Your task to perform on an android device: Add "logitech g933" to the cart on newegg Image 0: 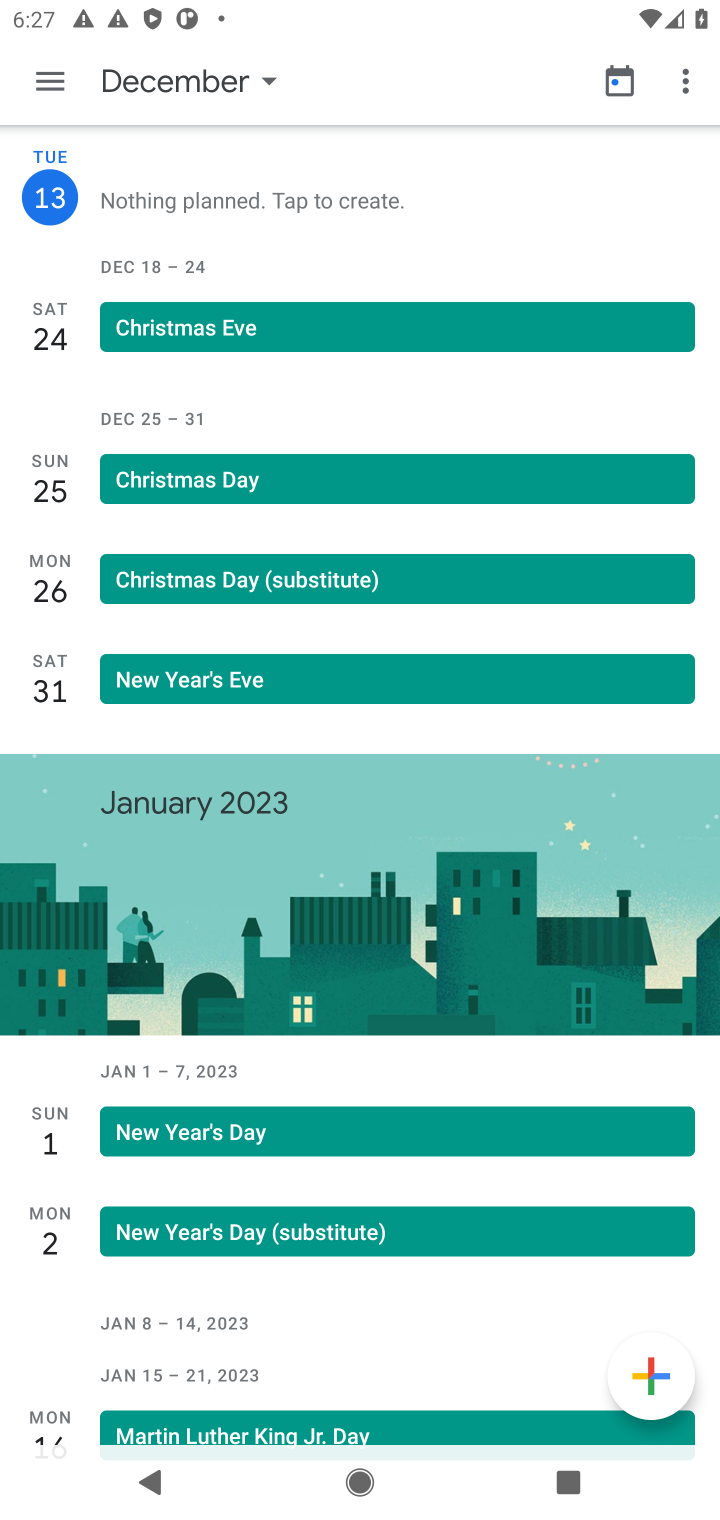
Step 0: press home button
Your task to perform on an android device: Add "logitech g933" to the cart on newegg Image 1: 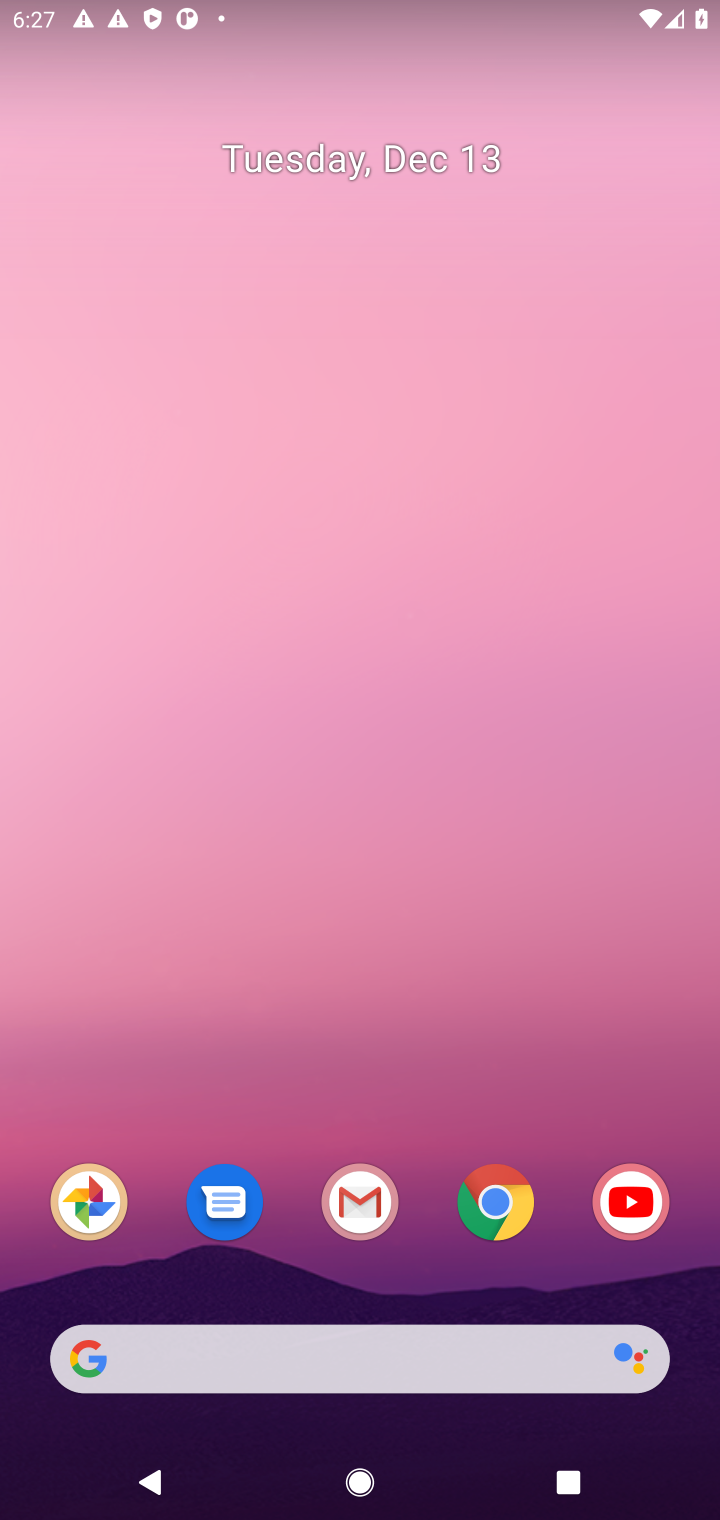
Step 1: click (493, 1211)
Your task to perform on an android device: Add "logitech g933" to the cart on newegg Image 2: 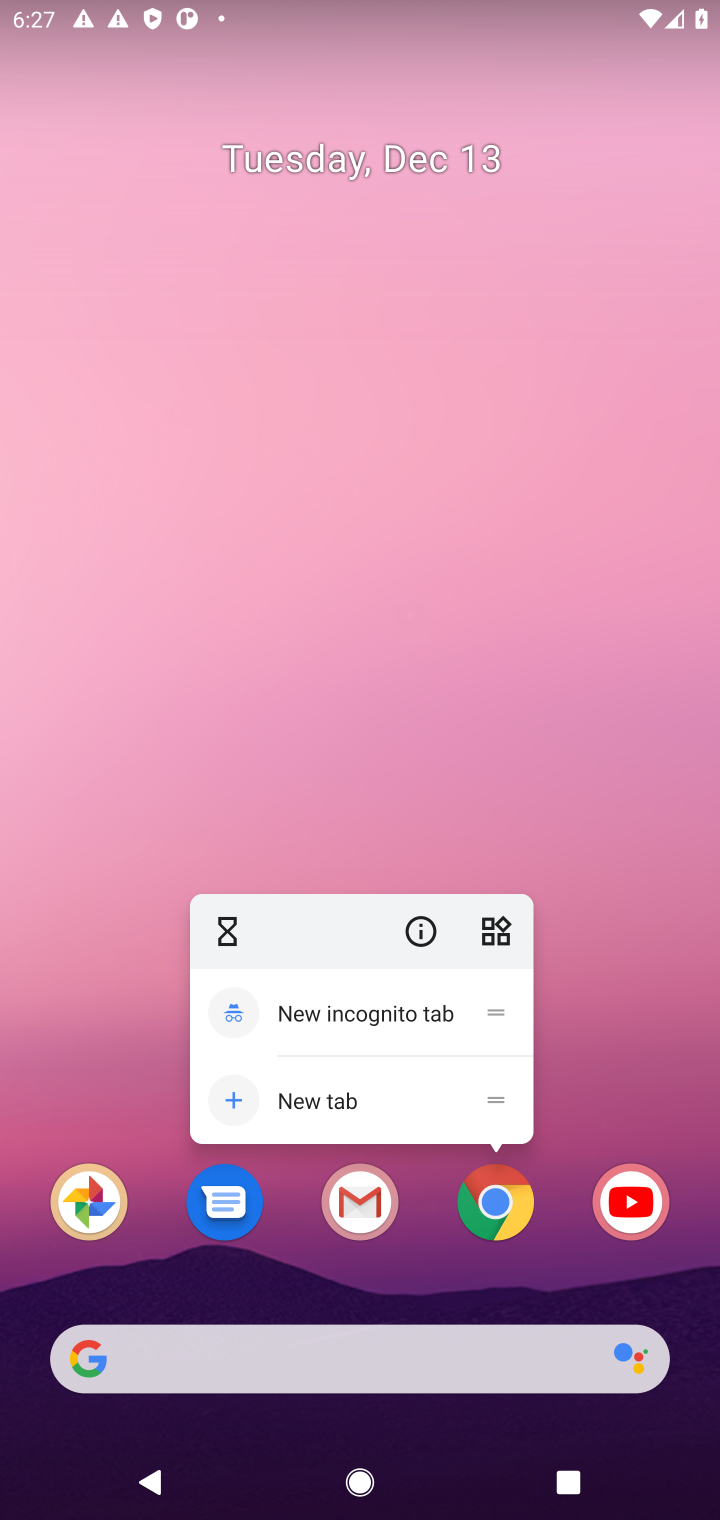
Step 2: click (493, 1211)
Your task to perform on an android device: Add "logitech g933" to the cart on newegg Image 3: 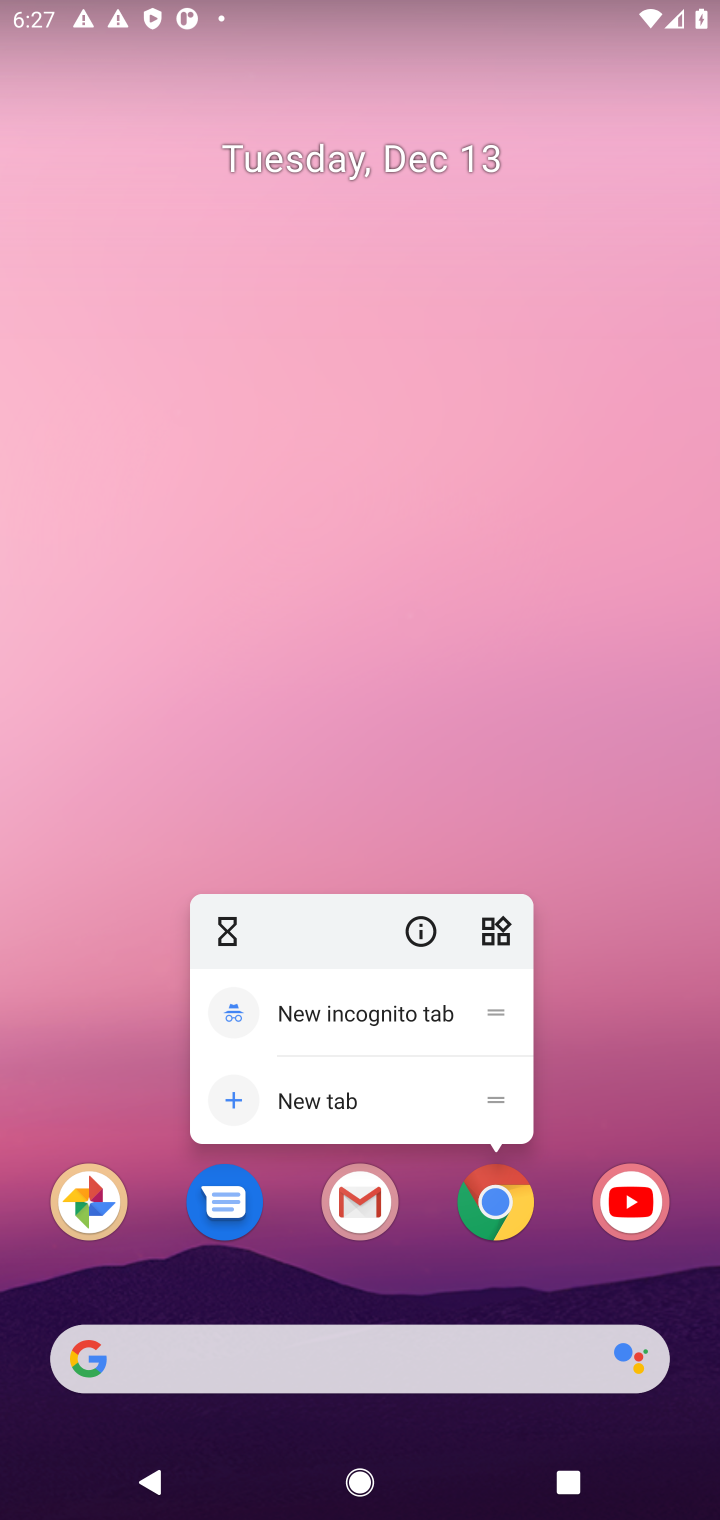
Step 3: click (493, 1211)
Your task to perform on an android device: Add "logitech g933" to the cart on newegg Image 4: 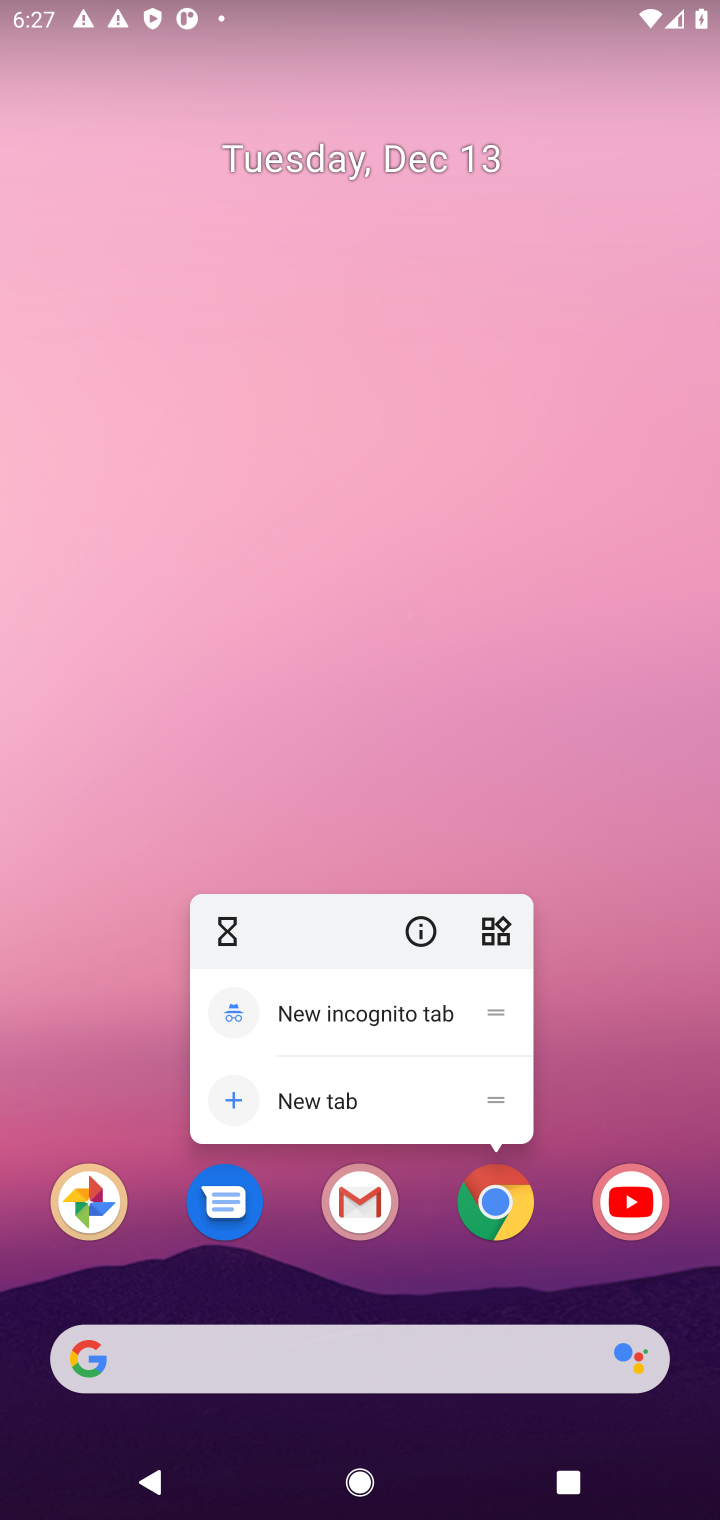
Step 4: click (493, 1211)
Your task to perform on an android device: Add "logitech g933" to the cart on newegg Image 5: 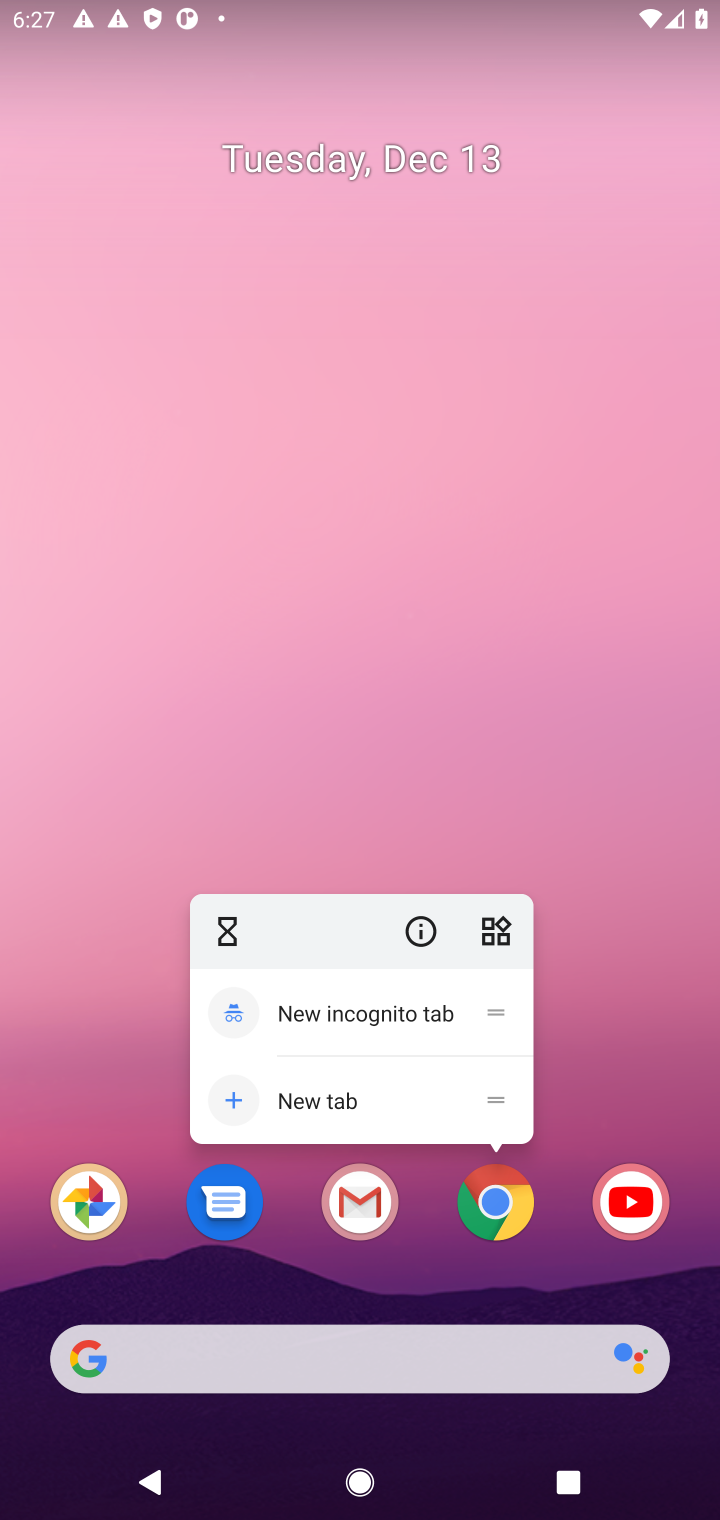
Step 5: click (513, 1217)
Your task to perform on an android device: Add "logitech g933" to the cart on newegg Image 6: 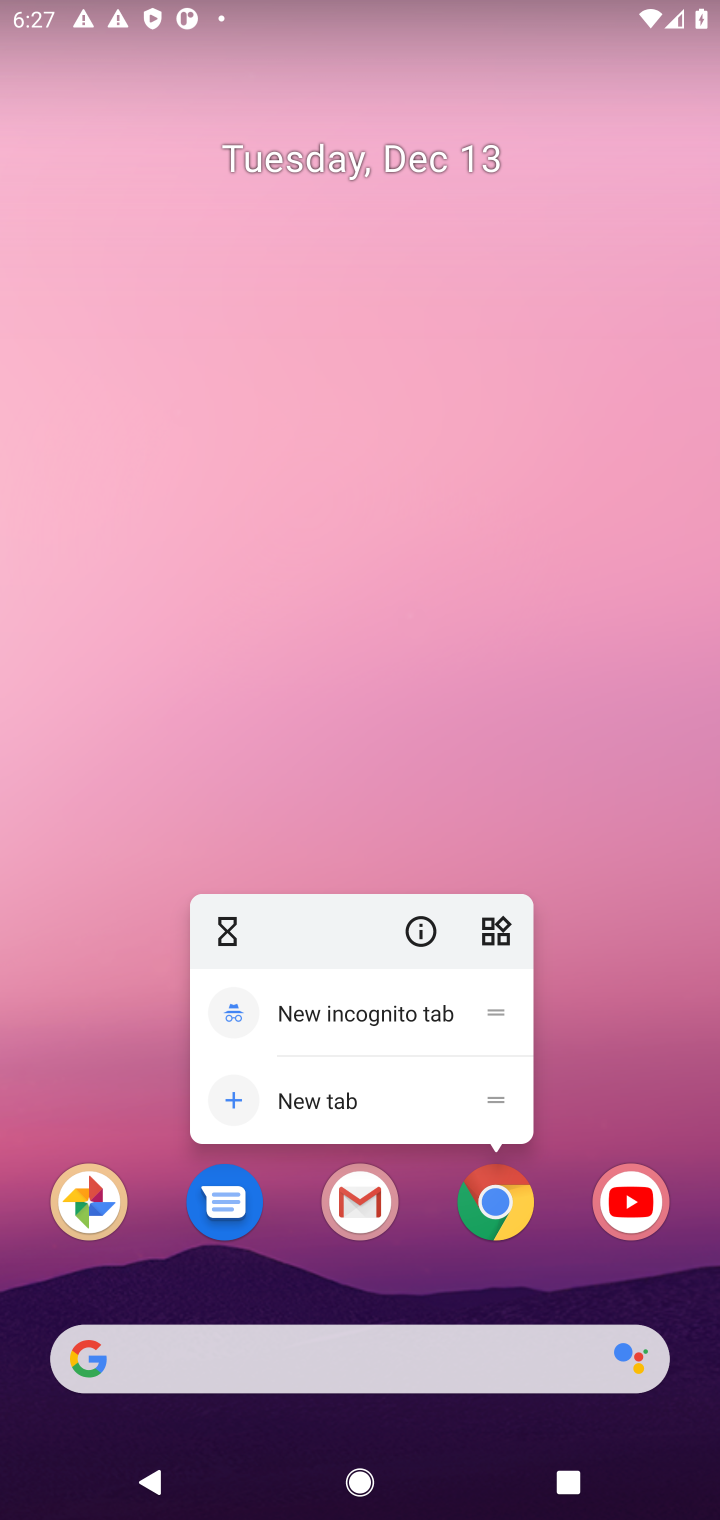
Step 6: click (581, 1112)
Your task to perform on an android device: Add "logitech g933" to the cart on newegg Image 7: 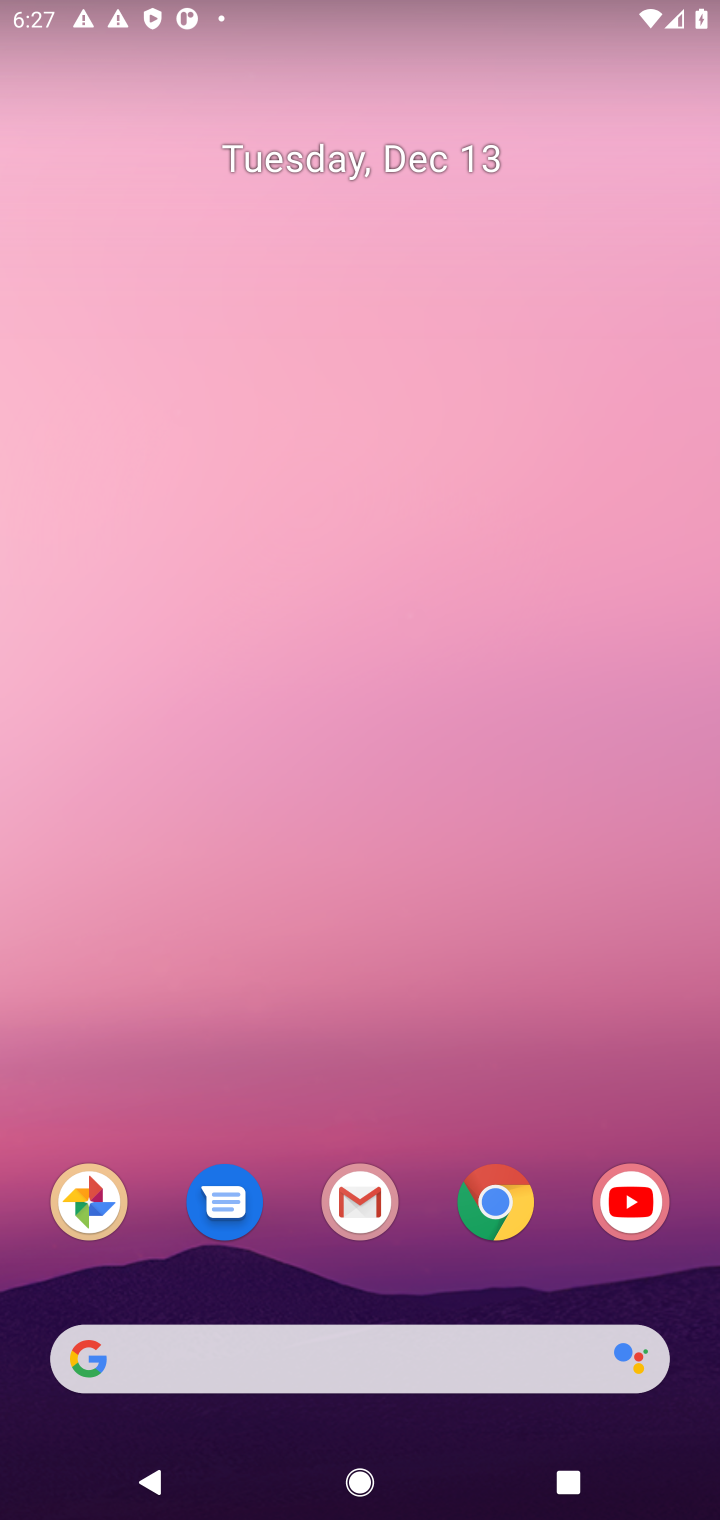
Step 7: click (512, 1214)
Your task to perform on an android device: Add "logitech g933" to the cart on newegg Image 8: 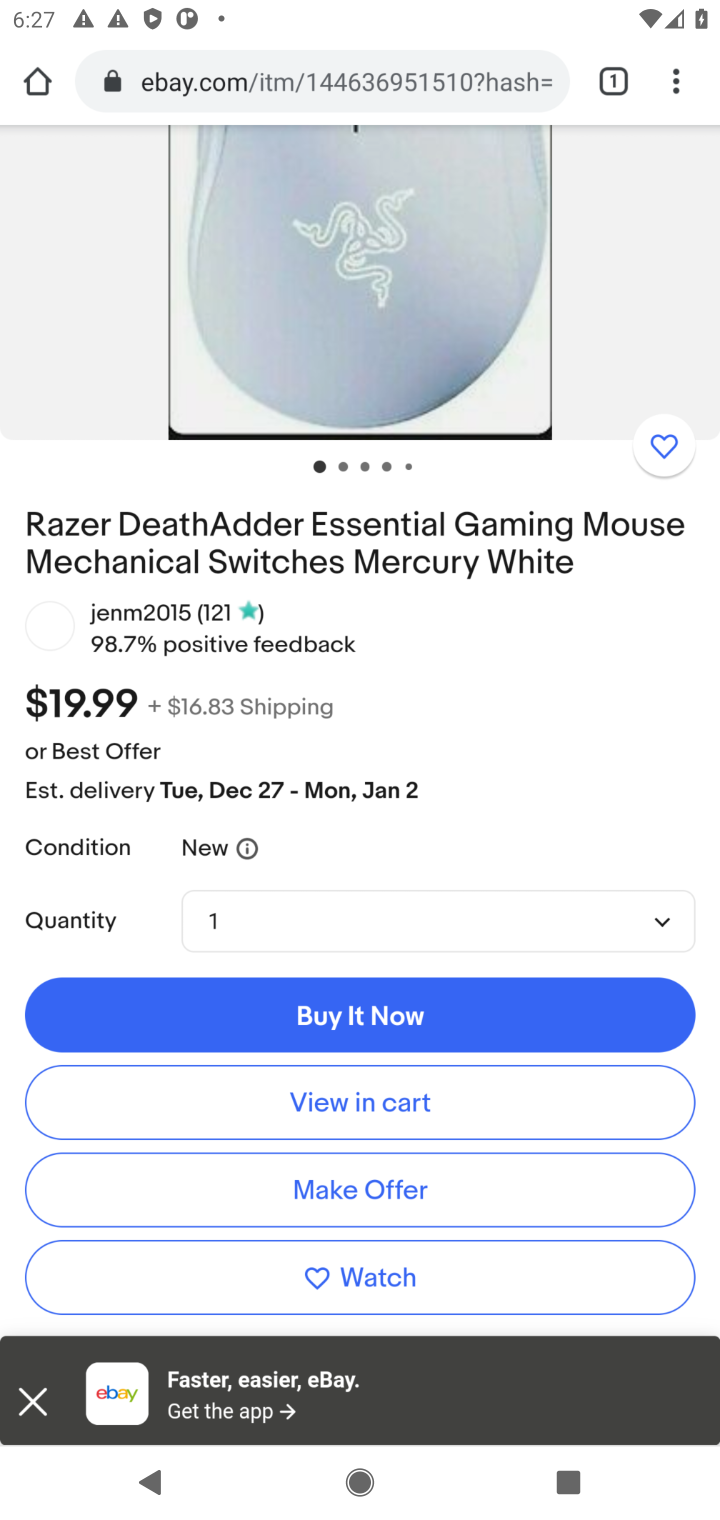
Step 8: click (512, 1214)
Your task to perform on an android device: Add "logitech g933" to the cart on newegg Image 9: 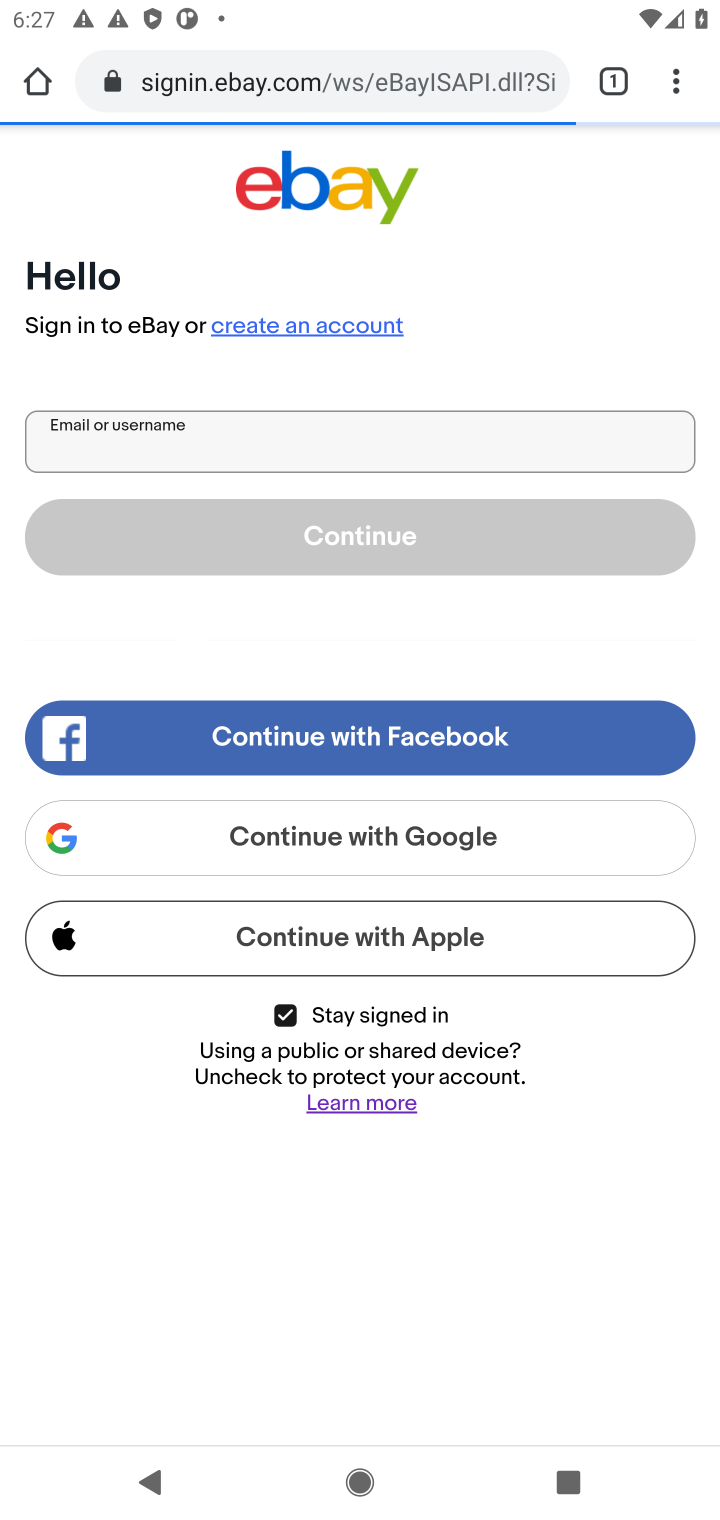
Step 9: click (273, 84)
Your task to perform on an android device: Add "logitech g933" to the cart on newegg Image 10: 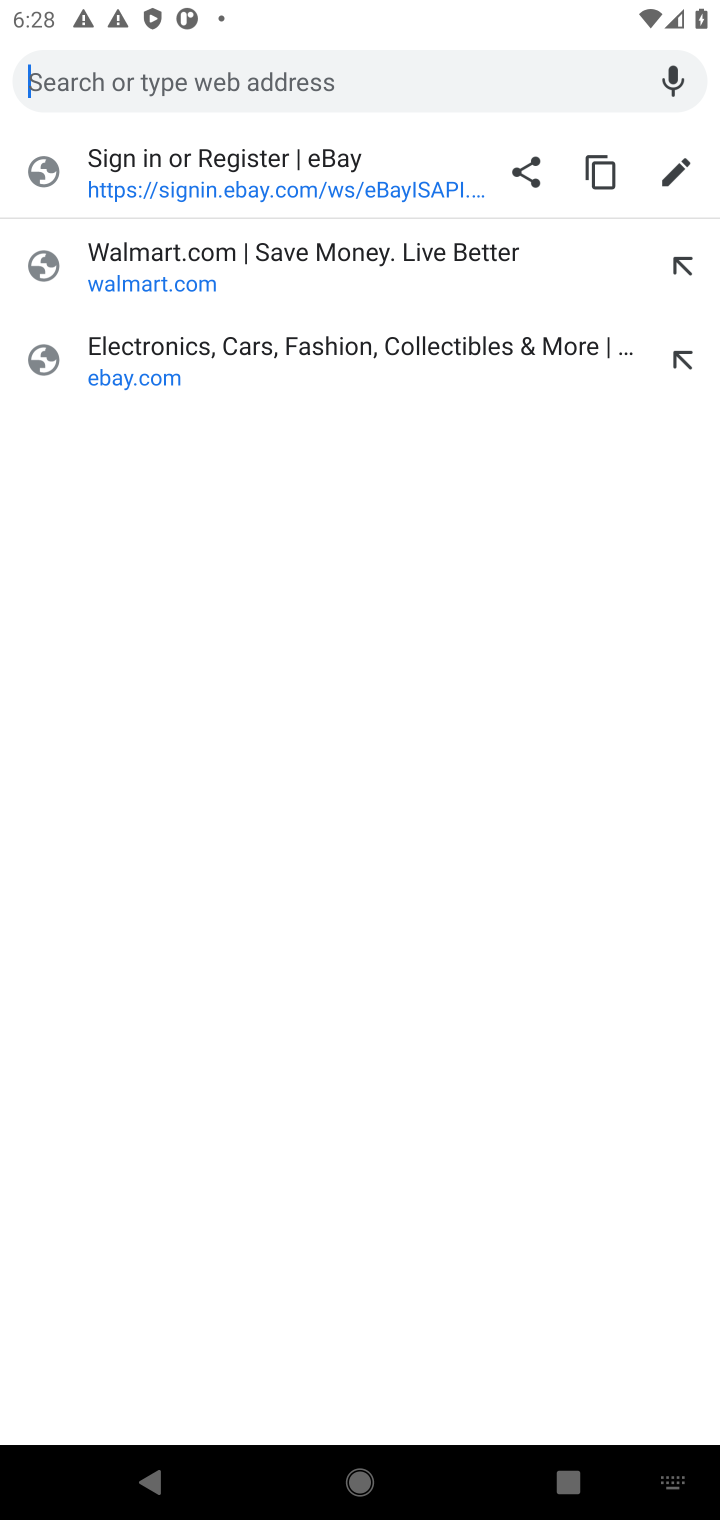
Step 10: type "newegg.com"
Your task to perform on an android device: Add "logitech g933" to the cart on newegg Image 11: 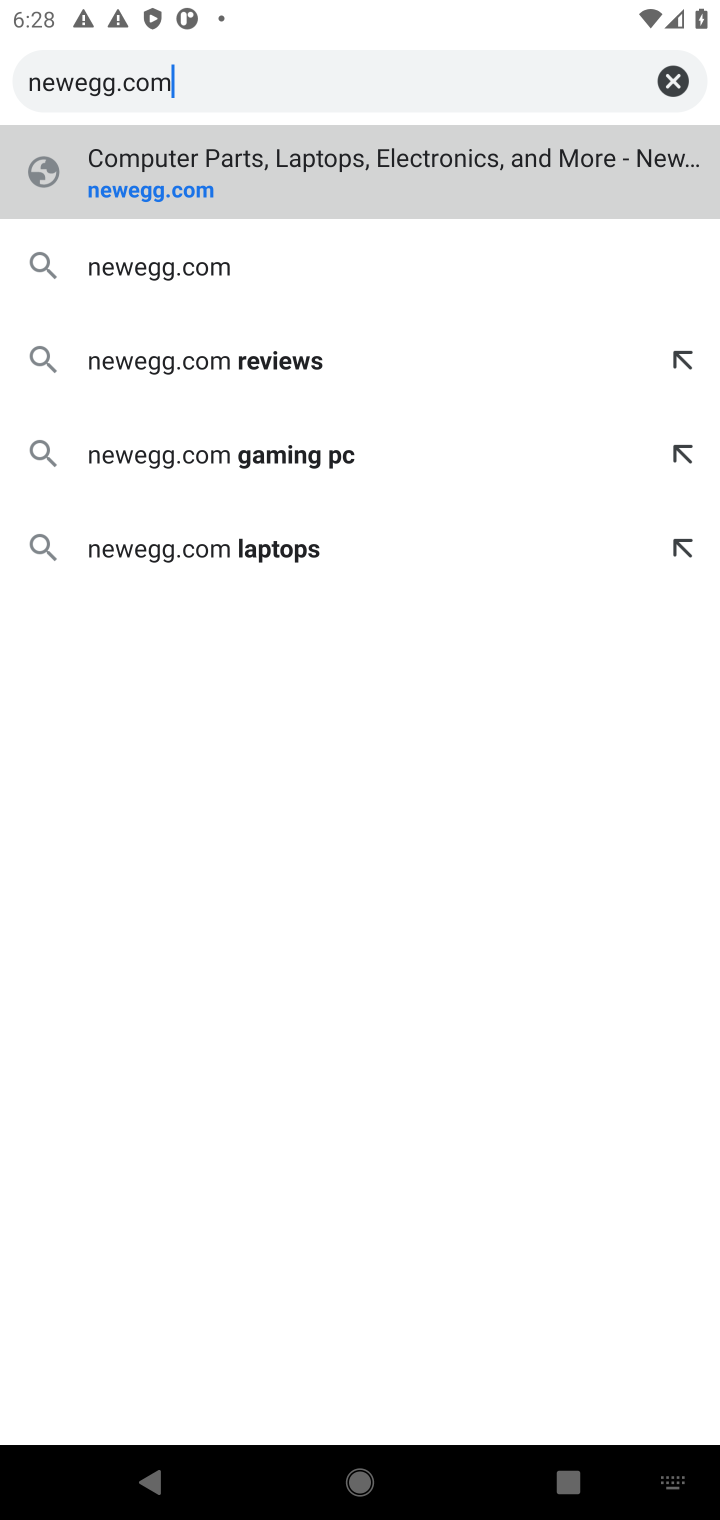
Step 11: click (182, 197)
Your task to perform on an android device: Add "logitech g933" to the cart on newegg Image 12: 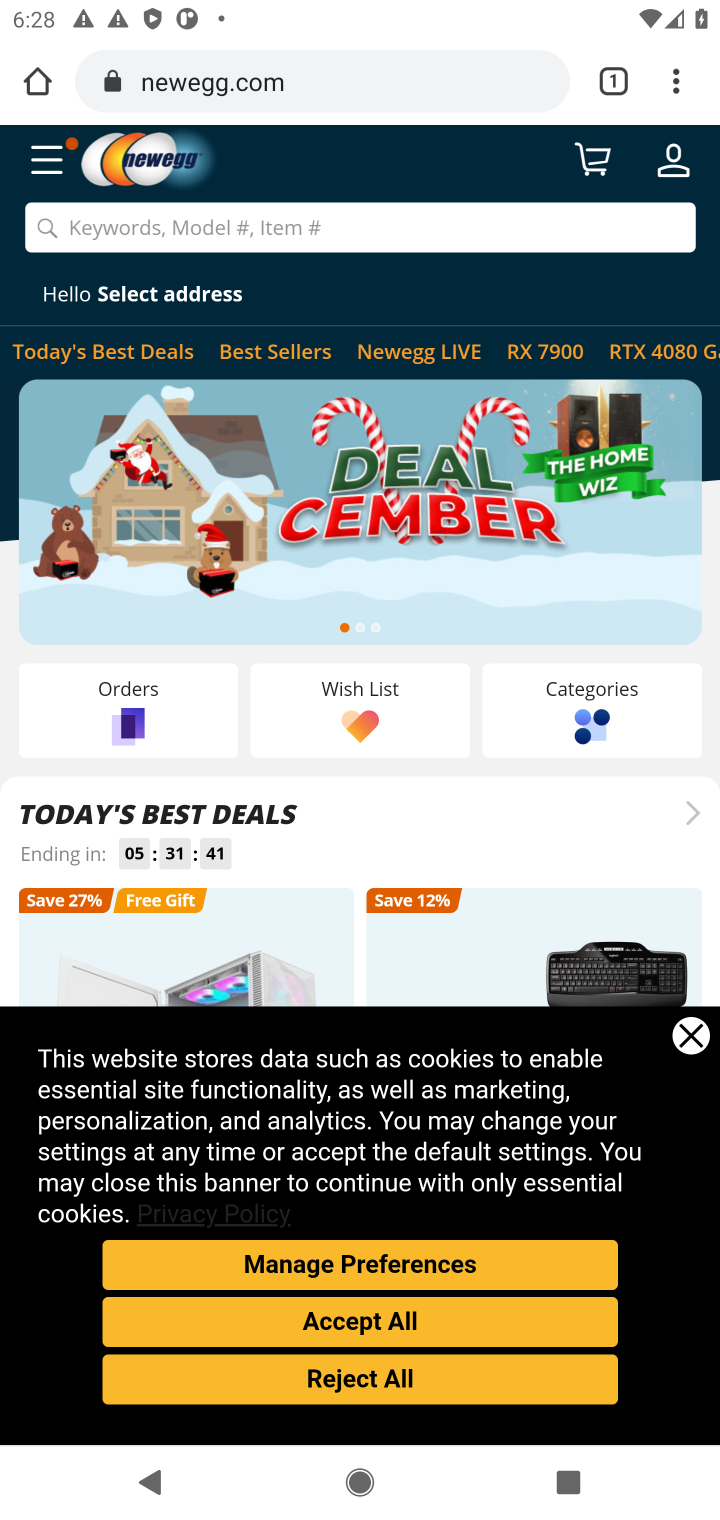
Step 12: click (81, 240)
Your task to perform on an android device: Add "logitech g933" to the cart on newegg Image 13: 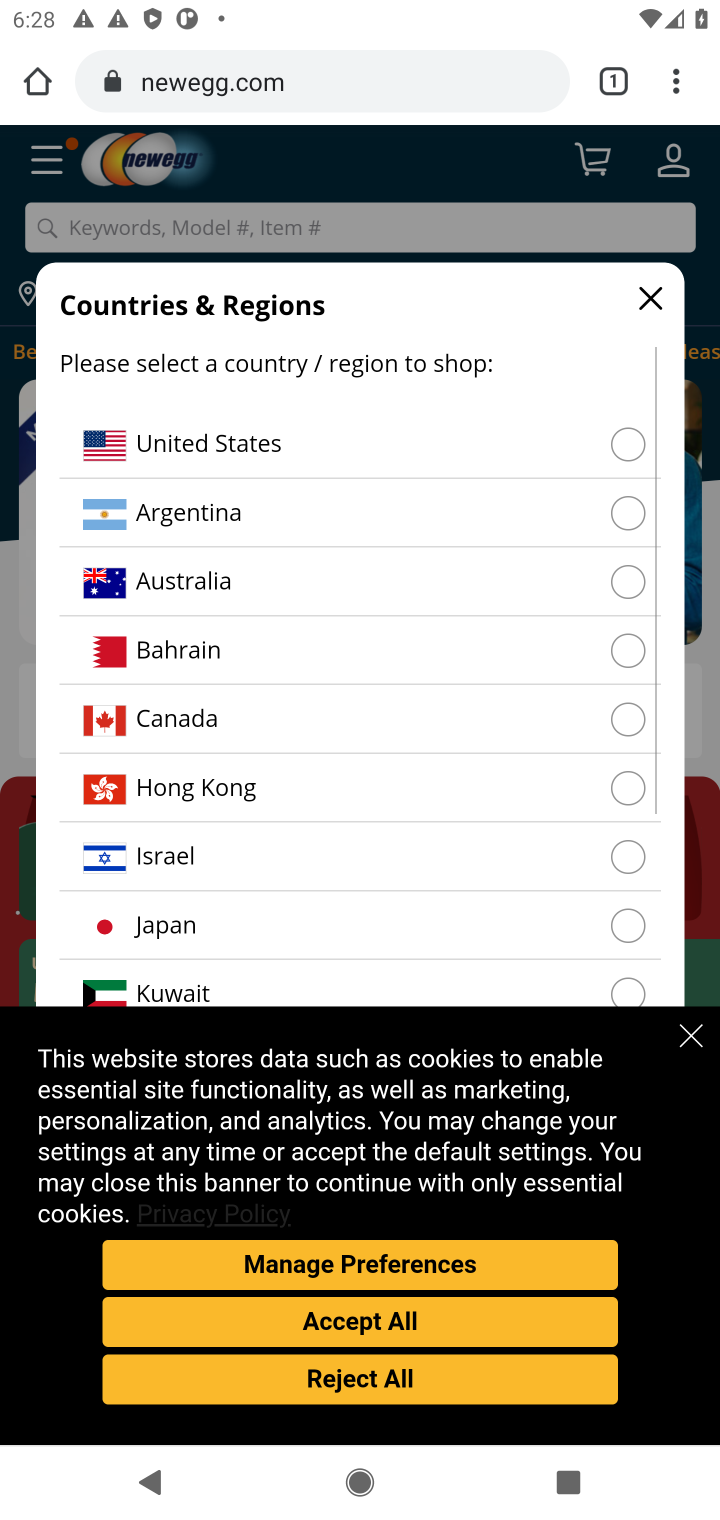
Step 13: click (695, 1037)
Your task to perform on an android device: Add "logitech g933" to the cart on newegg Image 14: 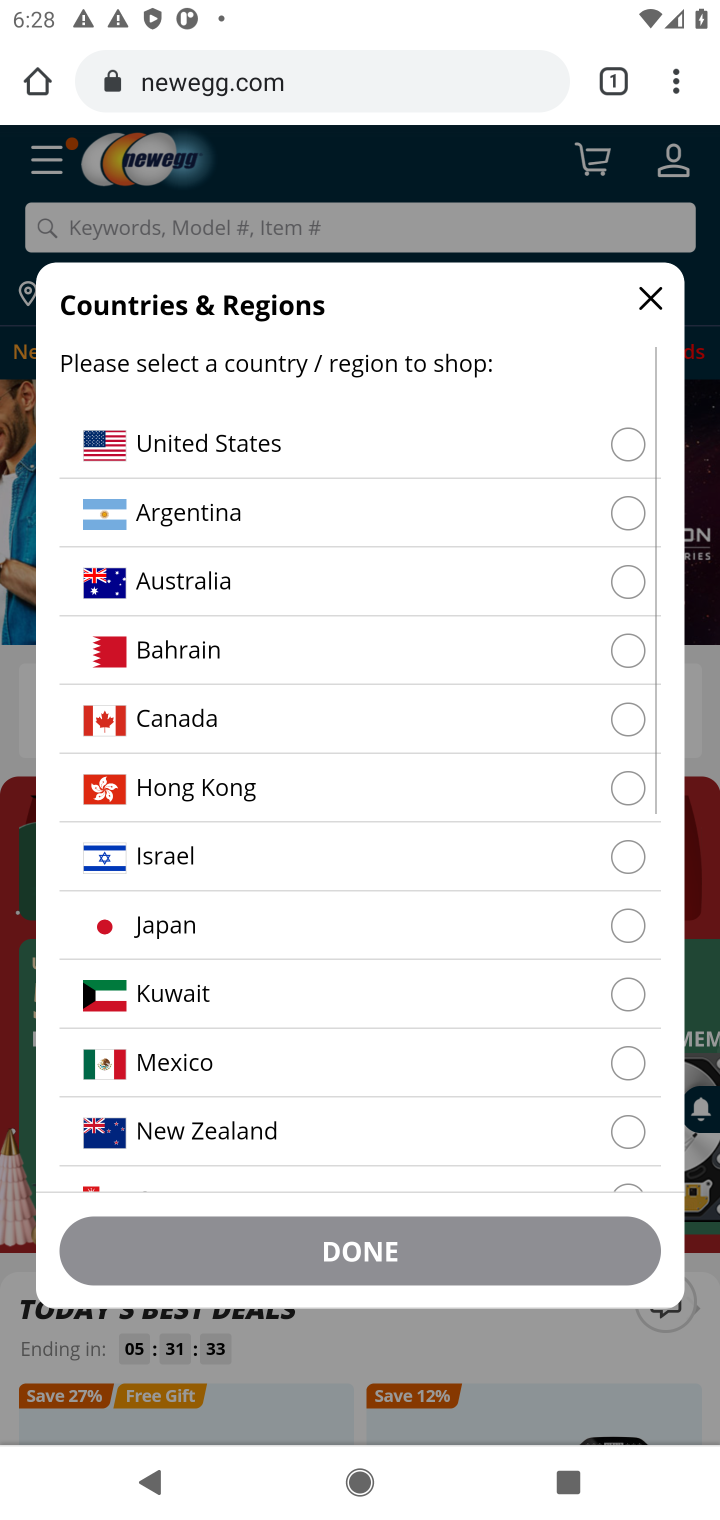
Step 14: click (139, 456)
Your task to perform on an android device: Add "logitech g933" to the cart on newegg Image 15: 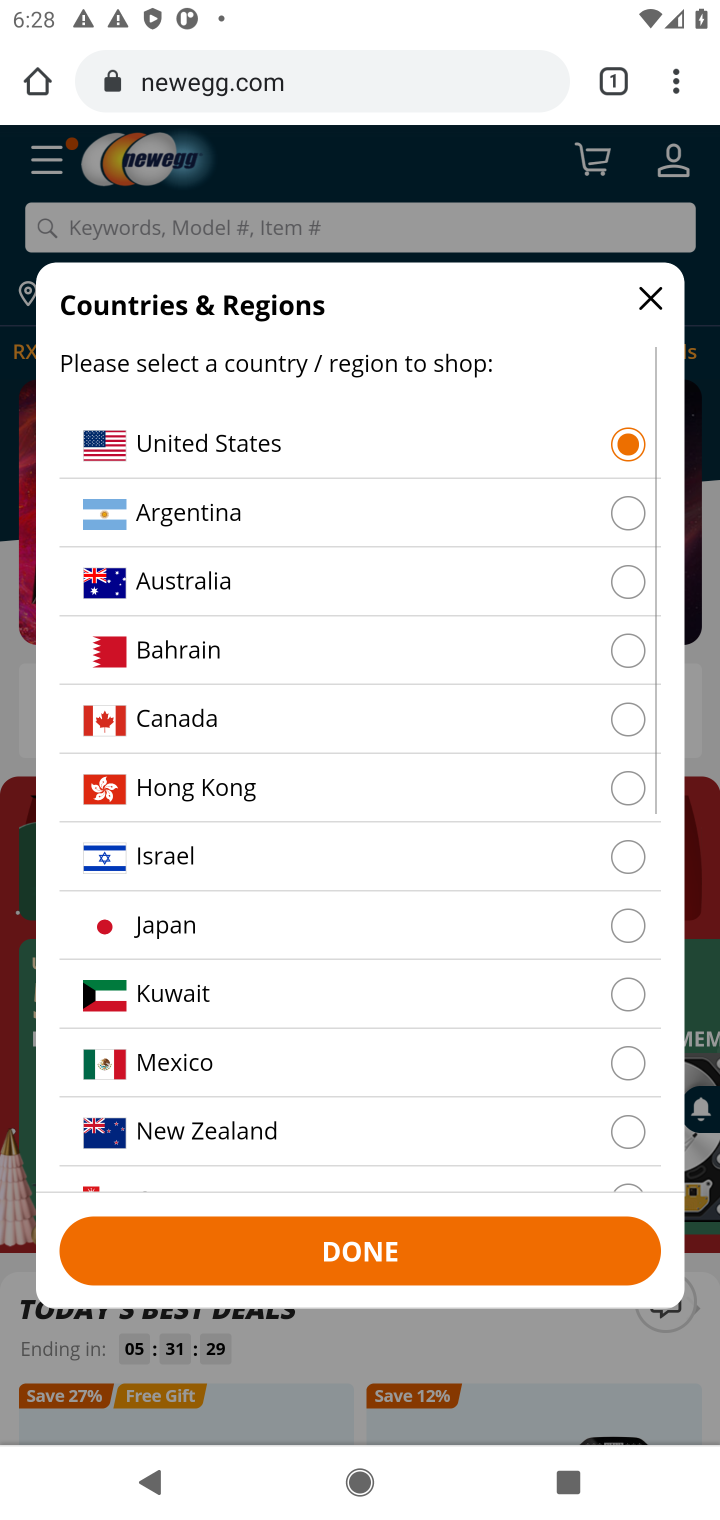
Step 15: click (334, 1249)
Your task to perform on an android device: Add "logitech g933" to the cart on newegg Image 16: 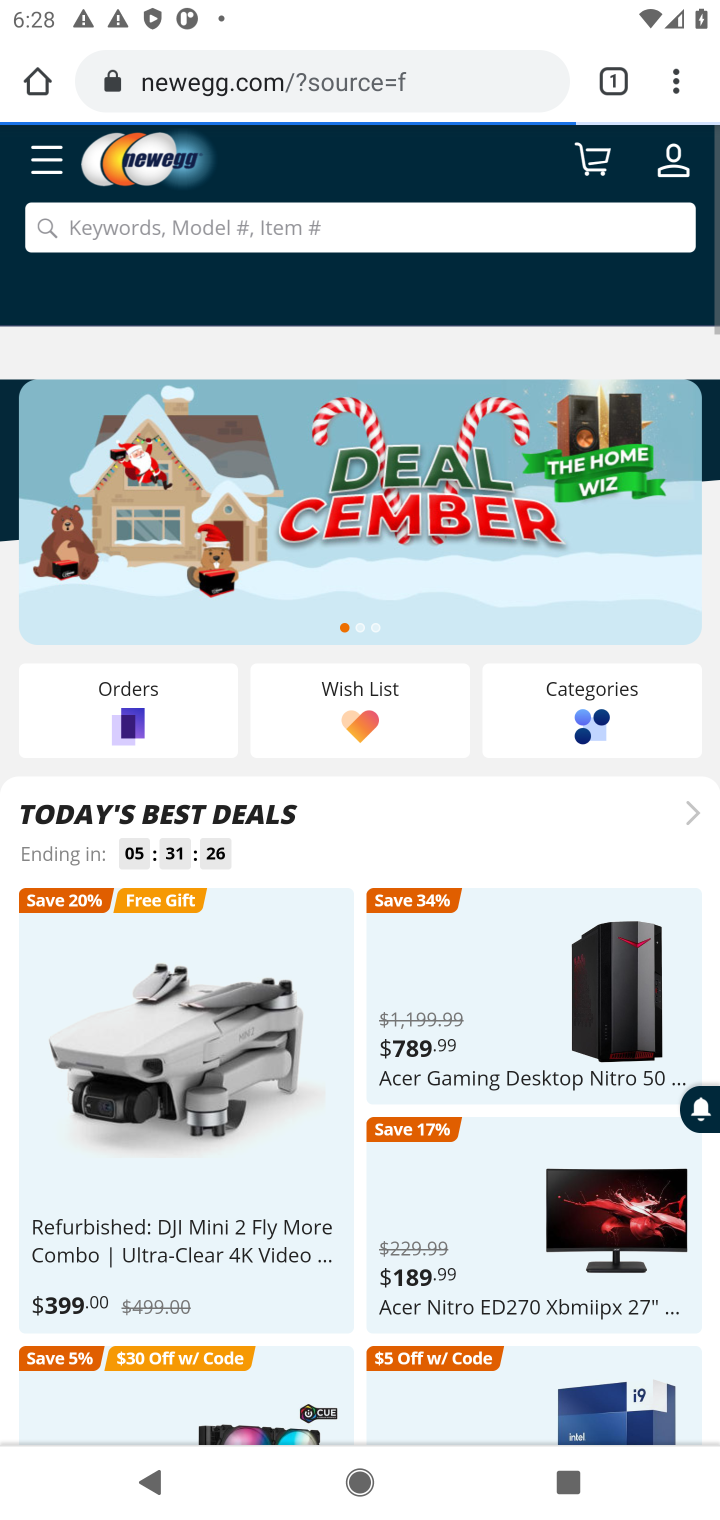
Step 16: click (137, 240)
Your task to perform on an android device: Add "logitech g933" to the cart on newegg Image 17: 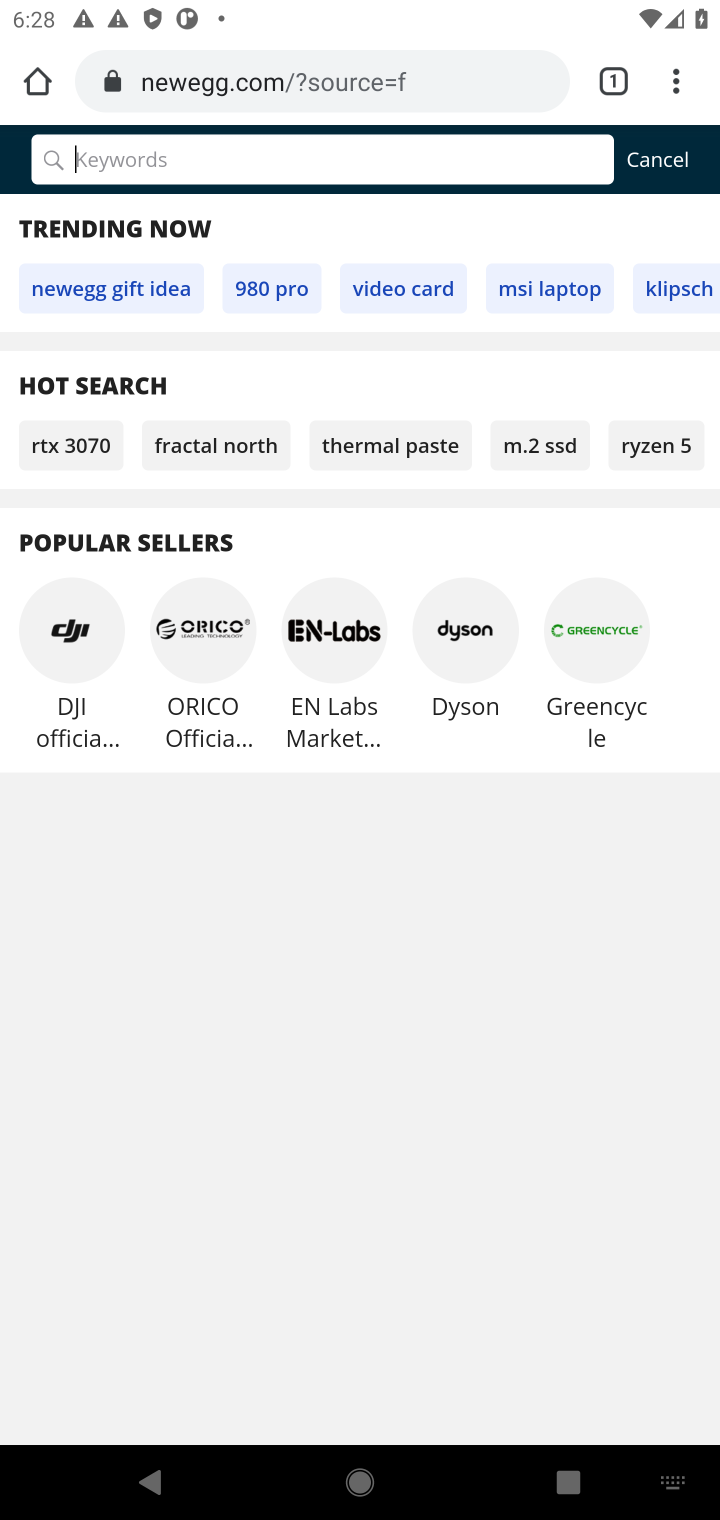
Step 17: type "logitech g933"
Your task to perform on an android device: Add "logitech g933" to the cart on newegg Image 18: 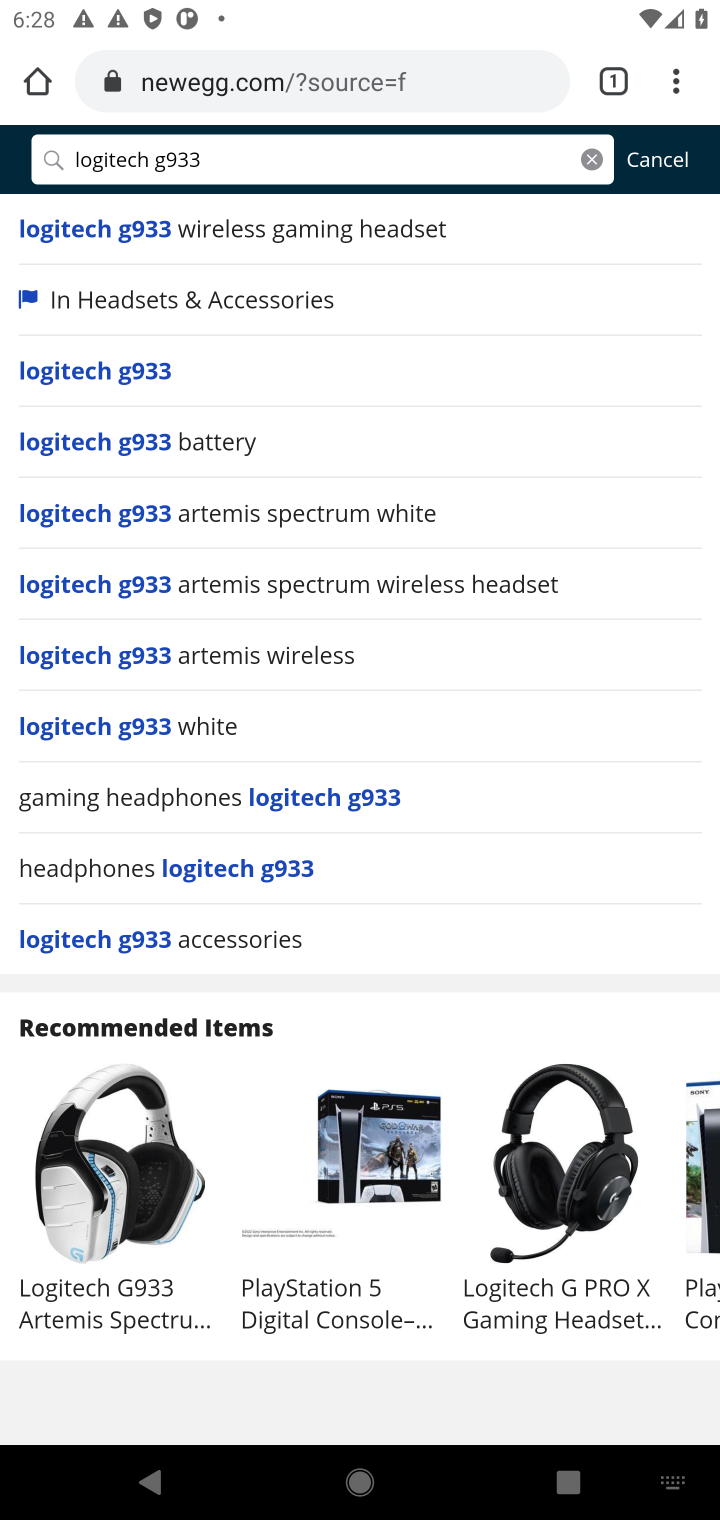
Step 18: click (116, 376)
Your task to perform on an android device: Add "logitech g933" to the cart on newegg Image 19: 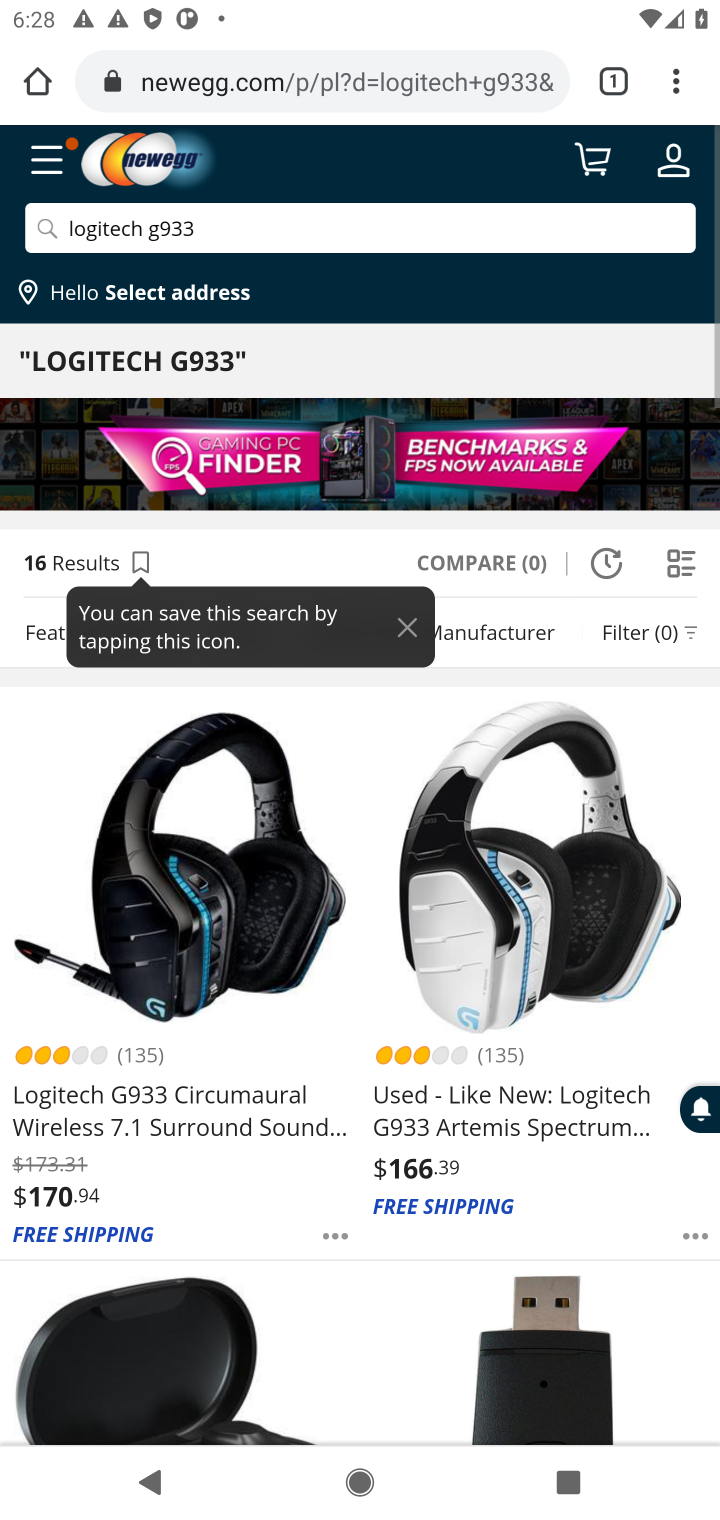
Step 19: drag from (217, 1135) to (179, 720)
Your task to perform on an android device: Add "logitech g933" to the cart on newegg Image 20: 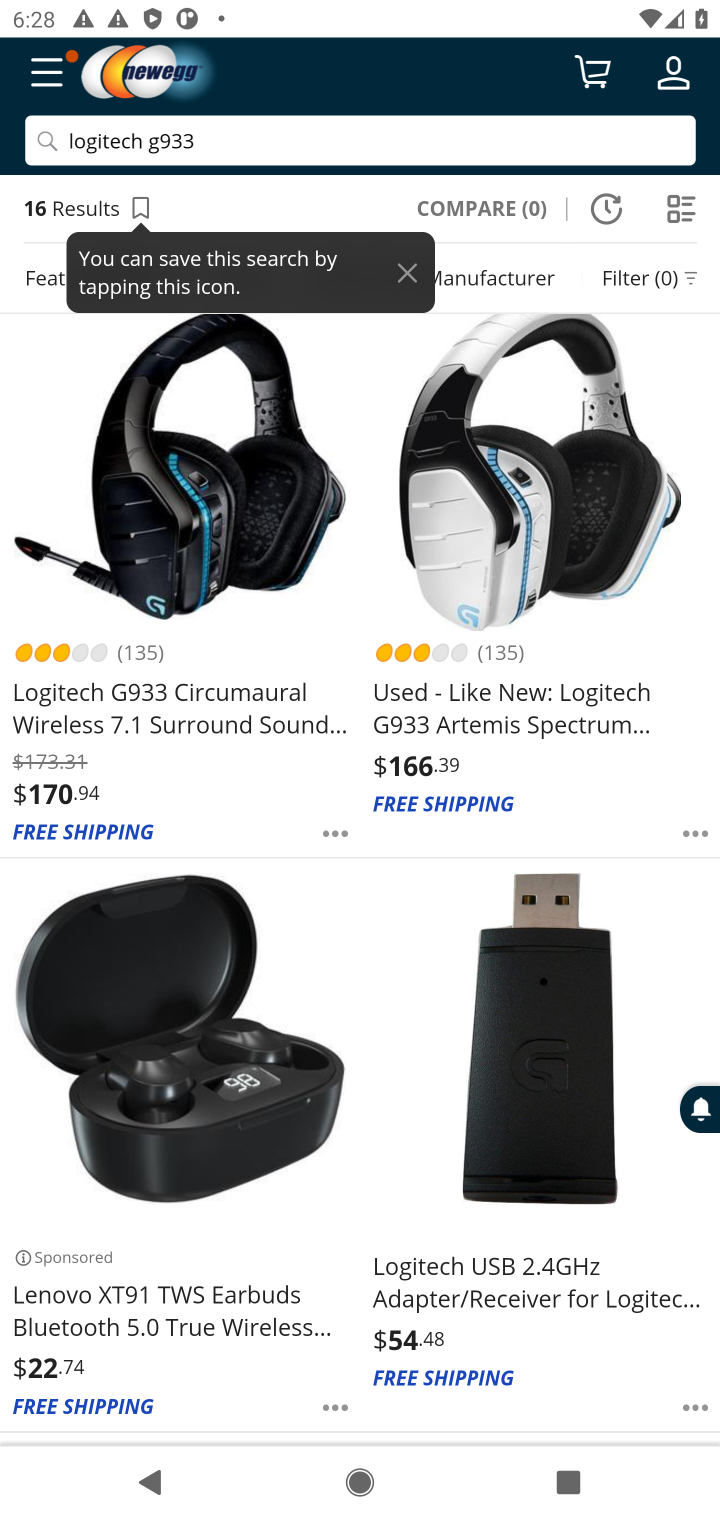
Step 20: click (179, 720)
Your task to perform on an android device: Add "logitech g933" to the cart on newegg Image 21: 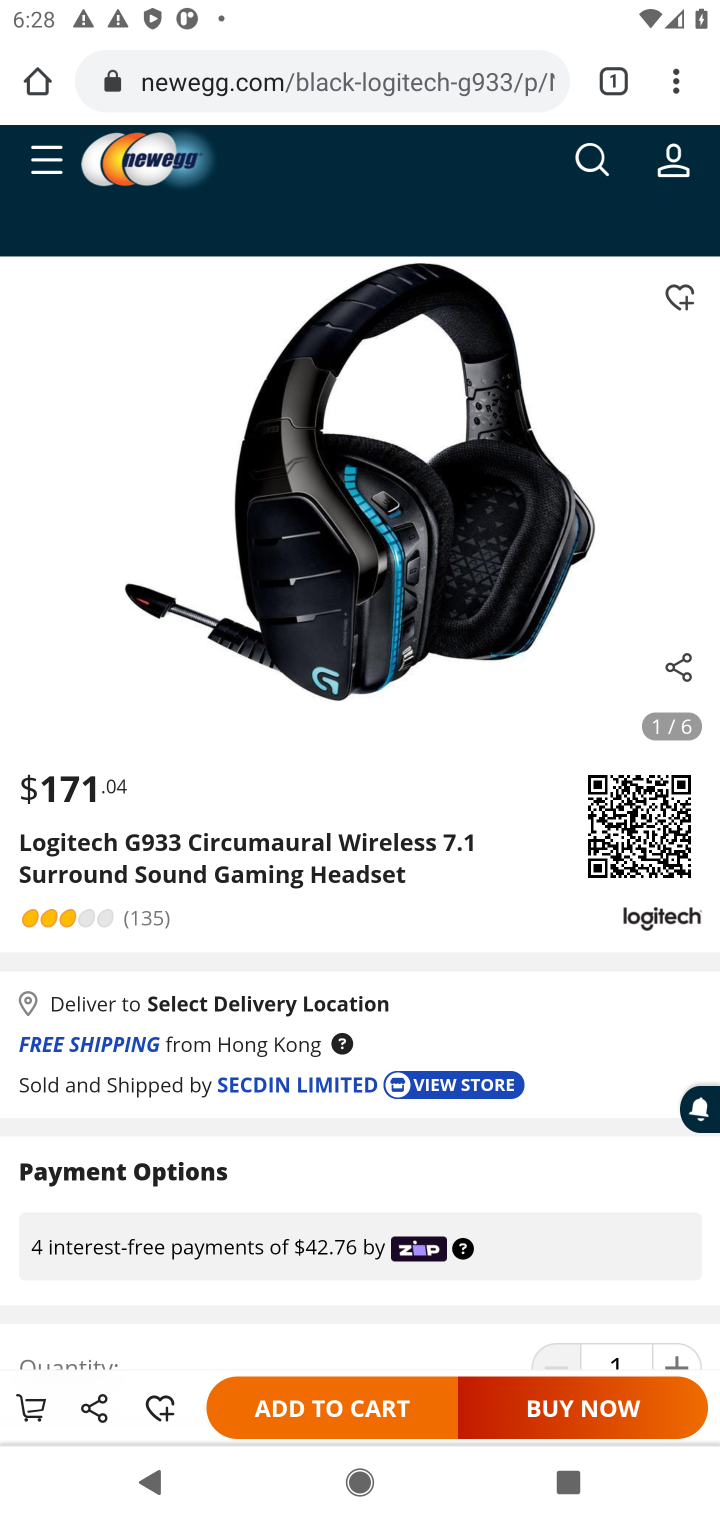
Step 21: click (293, 1400)
Your task to perform on an android device: Add "logitech g933" to the cart on newegg Image 22: 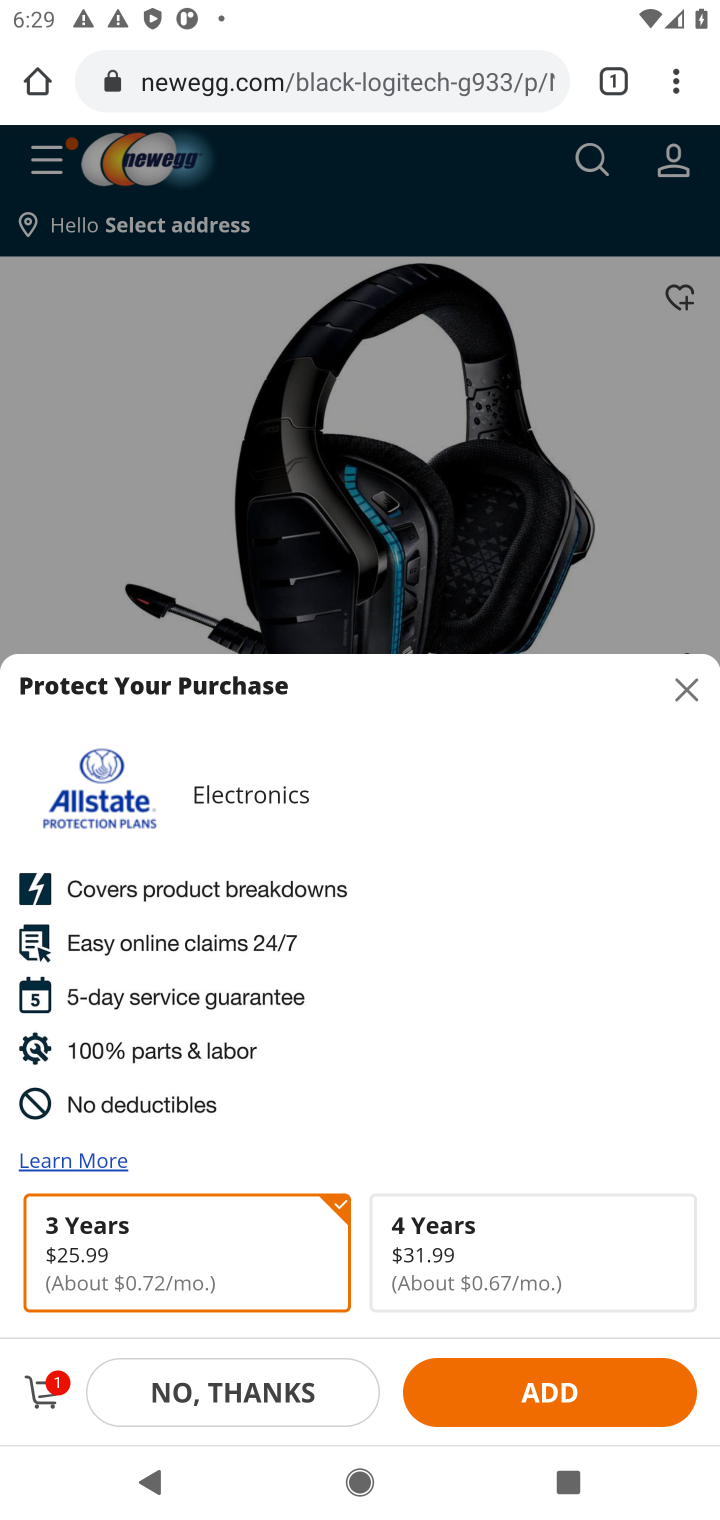
Step 22: task complete